Your task to perform on an android device: open app "NewsBreak: Local News & Alerts" (install if not already installed) and enter user name: "switch@outlook.com" and password: "fabrics" Image 0: 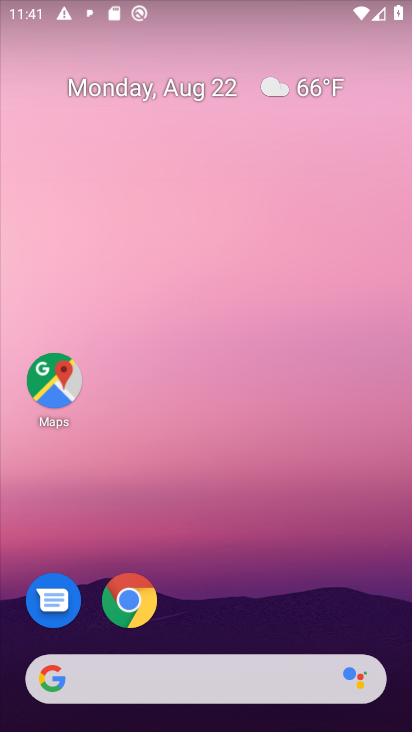
Step 0: drag from (218, 577) to (203, 189)
Your task to perform on an android device: open app "NewsBreak: Local News & Alerts" (install if not already installed) and enter user name: "switch@outlook.com" and password: "fabrics" Image 1: 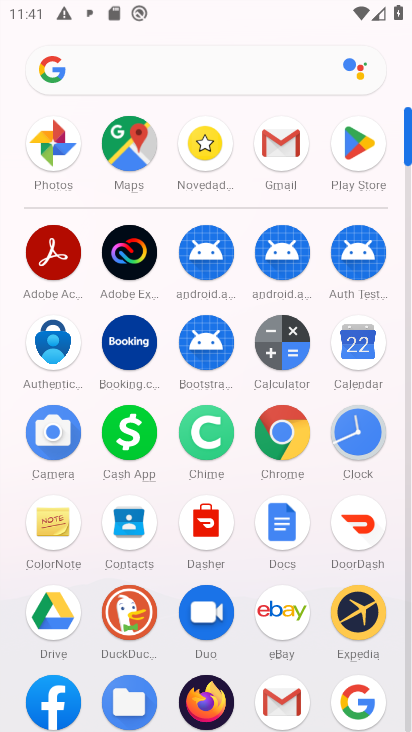
Step 1: click (354, 159)
Your task to perform on an android device: open app "NewsBreak: Local News & Alerts" (install if not already installed) and enter user name: "switch@outlook.com" and password: "fabrics" Image 2: 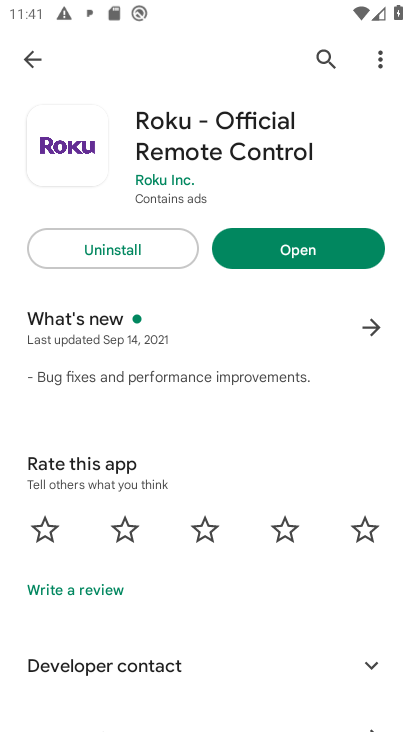
Step 2: click (323, 46)
Your task to perform on an android device: open app "NewsBreak: Local News & Alerts" (install if not already installed) and enter user name: "switch@outlook.com" and password: "fabrics" Image 3: 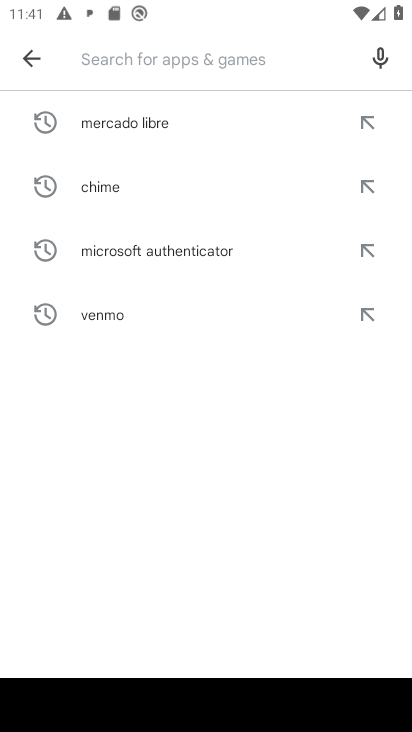
Step 3: type "NewsBreak: Local News & Alerts"
Your task to perform on an android device: open app "NewsBreak: Local News & Alerts" (install if not already installed) and enter user name: "switch@outlook.com" and password: "fabrics" Image 4: 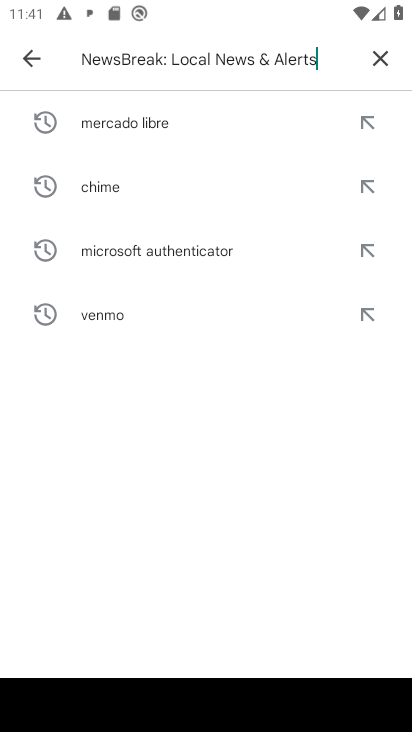
Step 4: type ""
Your task to perform on an android device: open app "NewsBreak: Local News & Alerts" (install if not already installed) and enter user name: "switch@outlook.com" and password: "fabrics" Image 5: 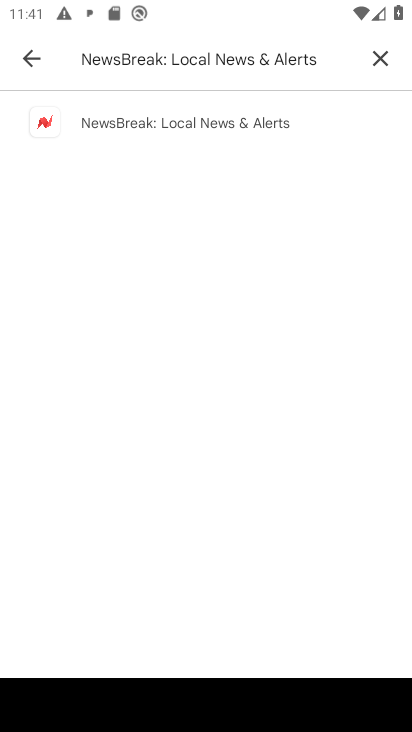
Step 5: click (133, 125)
Your task to perform on an android device: open app "NewsBreak: Local News & Alerts" (install if not already installed) and enter user name: "switch@outlook.com" and password: "fabrics" Image 6: 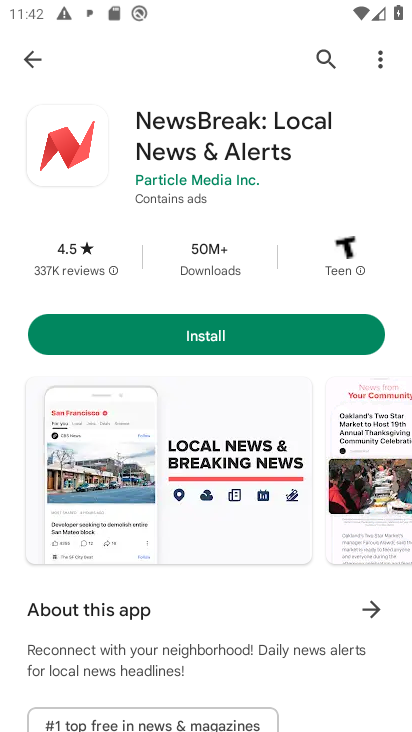
Step 6: click (207, 340)
Your task to perform on an android device: open app "NewsBreak: Local News & Alerts" (install if not already installed) and enter user name: "switch@outlook.com" and password: "fabrics" Image 7: 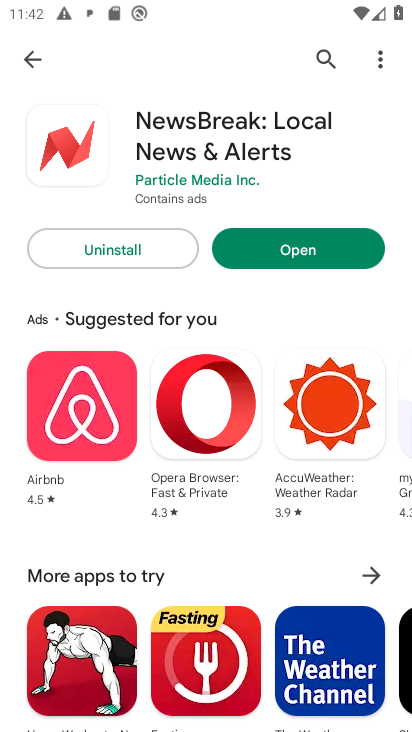
Step 7: click (293, 243)
Your task to perform on an android device: open app "NewsBreak: Local News & Alerts" (install if not already installed) and enter user name: "switch@outlook.com" and password: "fabrics" Image 8: 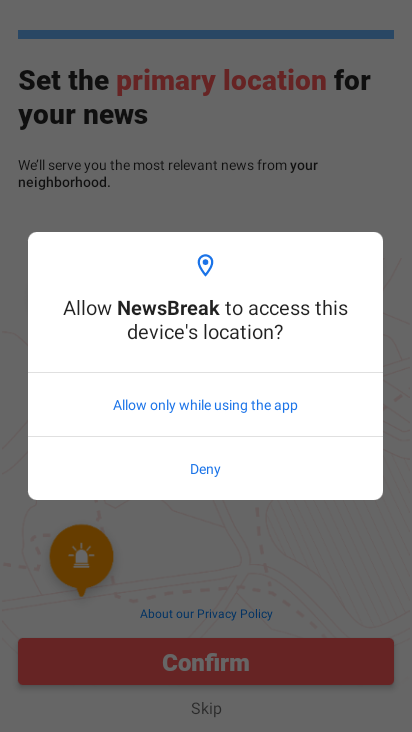
Step 8: task complete